Your task to perform on an android device: Open eBay Image 0: 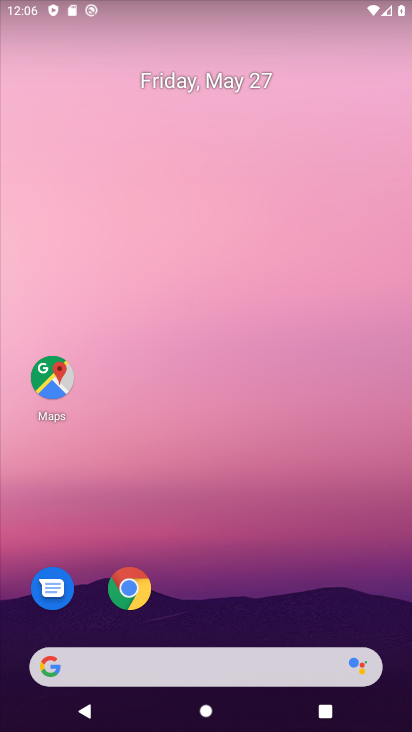
Step 0: click (236, 665)
Your task to perform on an android device: Open eBay Image 1: 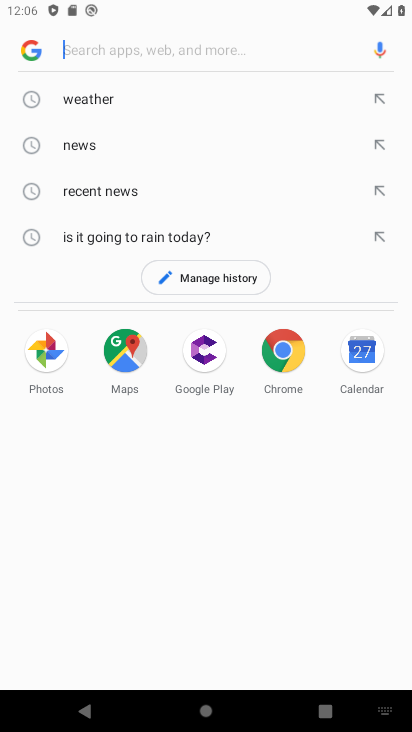
Step 1: type "ebay"
Your task to perform on an android device: Open eBay Image 2: 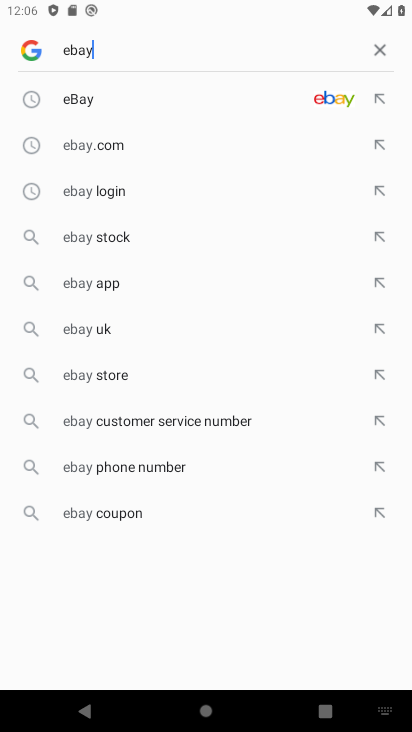
Step 2: click (89, 103)
Your task to perform on an android device: Open eBay Image 3: 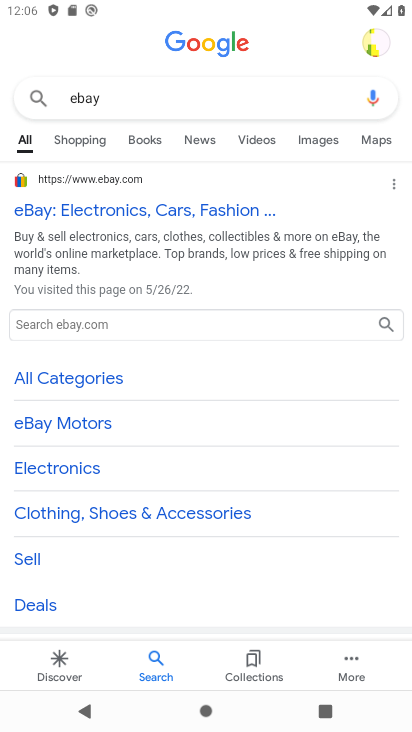
Step 3: click (76, 201)
Your task to perform on an android device: Open eBay Image 4: 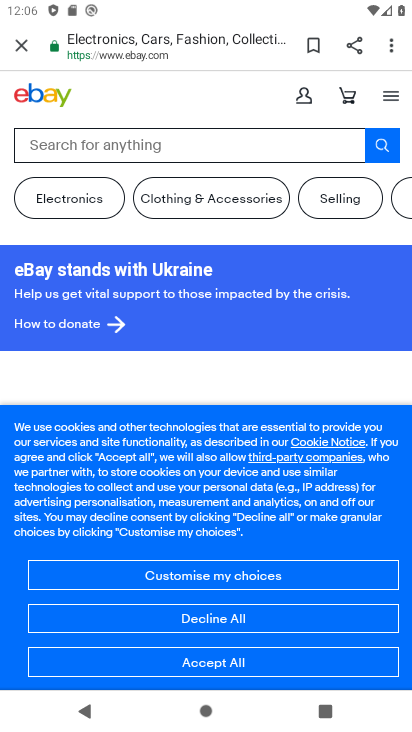
Step 4: task complete